Your task to perform on an android device: change the upload size in google photos Image 0: 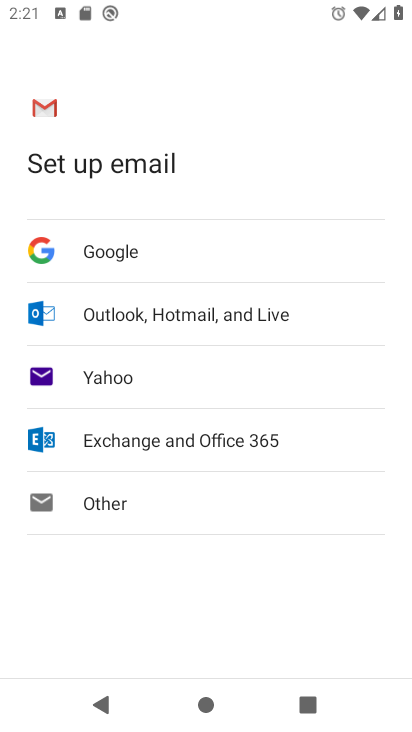
Step 0: press home button
Your task to perform on an android device: change the upload size in google photos Image 1: 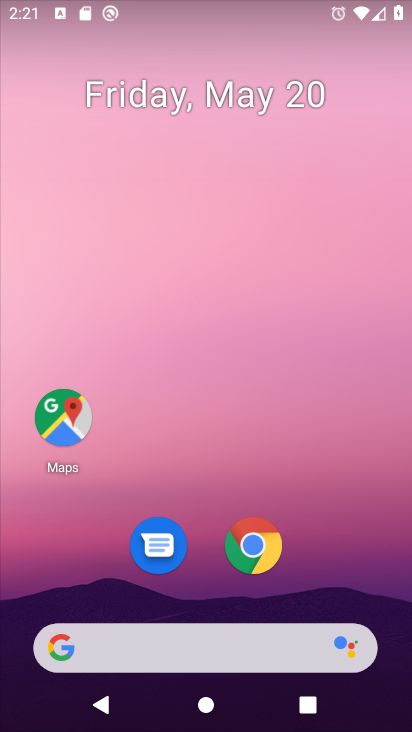
Step 1: drag from (303, 620) to (308, 99)
Your task to perform on an android device: change the upload size in google photos Image 2: 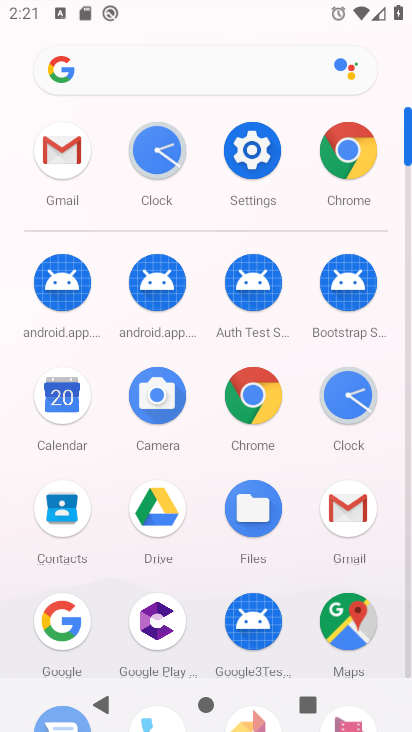
Step 2: drag from (301, 647) to (279, 295)
Your task to perform on an android device: change the upload size in google photos Image 3: 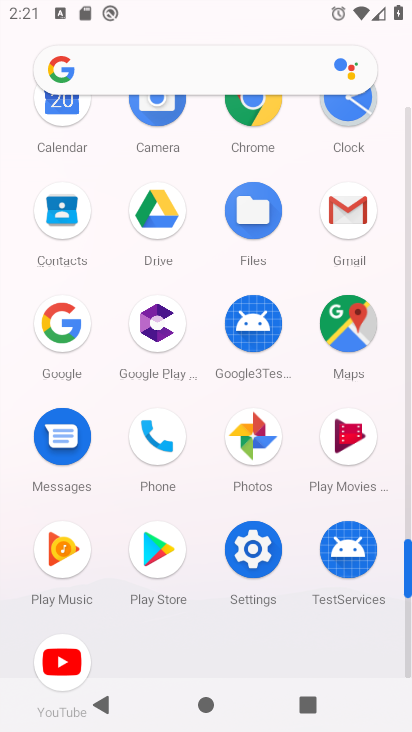
Step 3: click (255, 428)
Your task to perform on an android device: change the upload size in google photos Image 4: 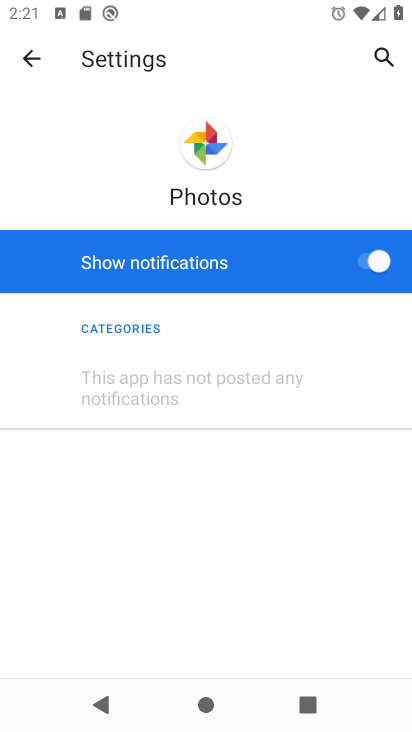
Step 4: press back button
Your task to perform on an android device: change the upload size in google photos Image 5: 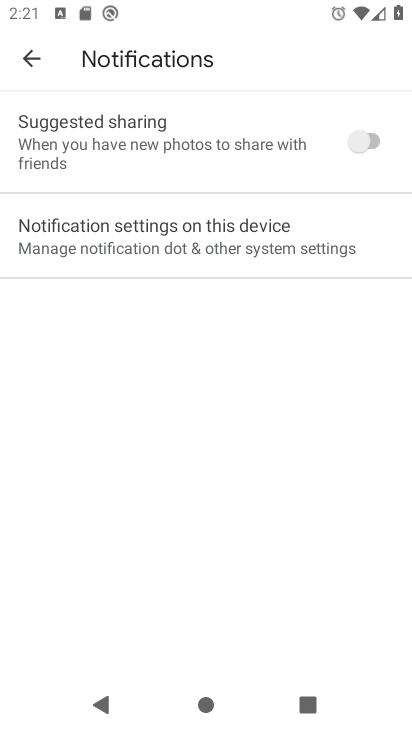
Step 5: press back button
Your task to perform on an android device: change the upload size in google photos Image 6: 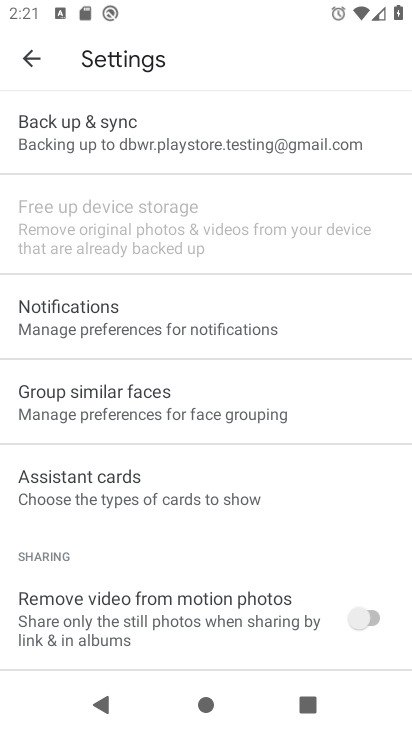
Step 6: click (207, 125)
Your task to perform on an android device: change the upload size in google photos Image 7: 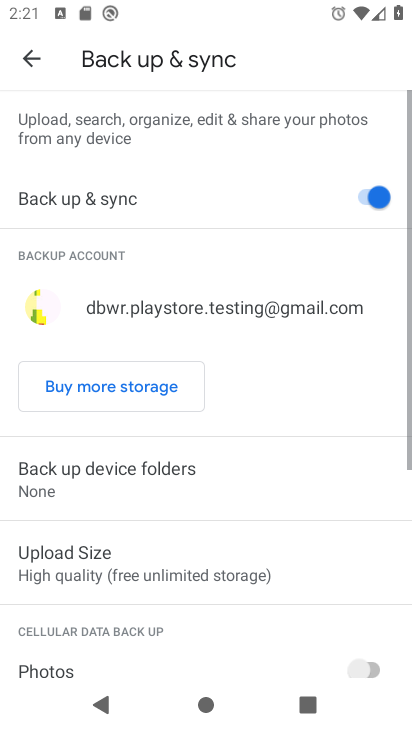
Step 7: drag from (231, 583) to (285, 239)
Your task to perform on an android device: change the upload size in google photos Image 8: 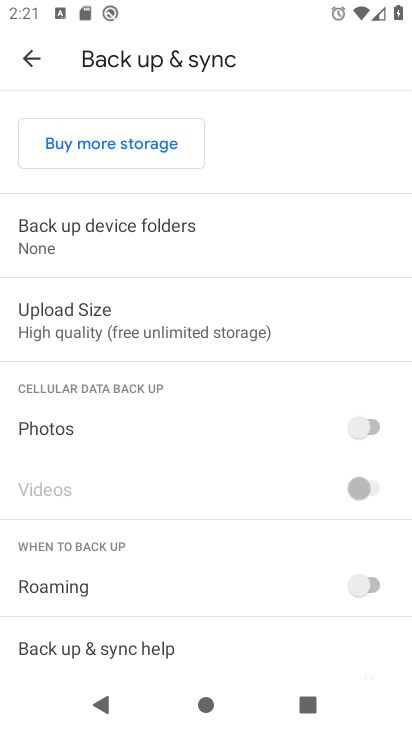
Step 8: click (238, 342)
Your task to perform on an android device: change the upload size in google photos Image 9: 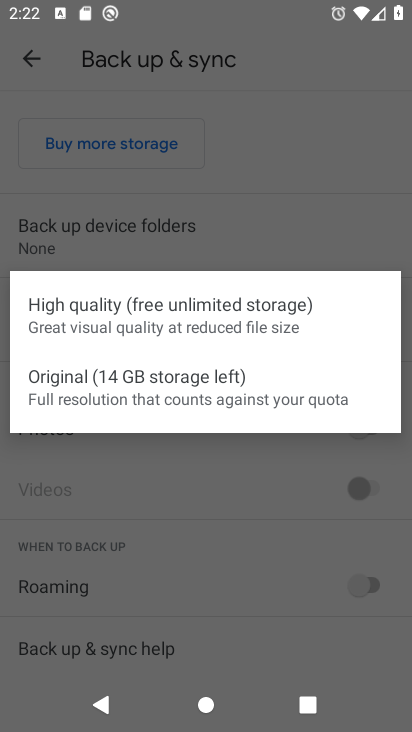
Step 9: click (164, 321)
Your task to perform on an android device: change the upload size in google photos Image 10: 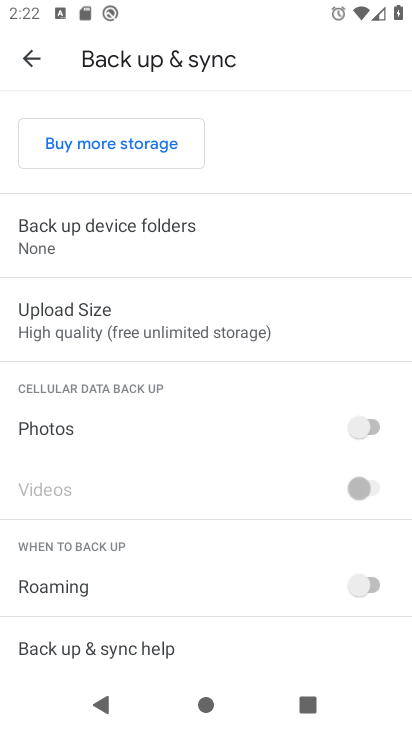
Step 10: task complete